Your task to perform on an android device: turn on airplane mode Image 0: 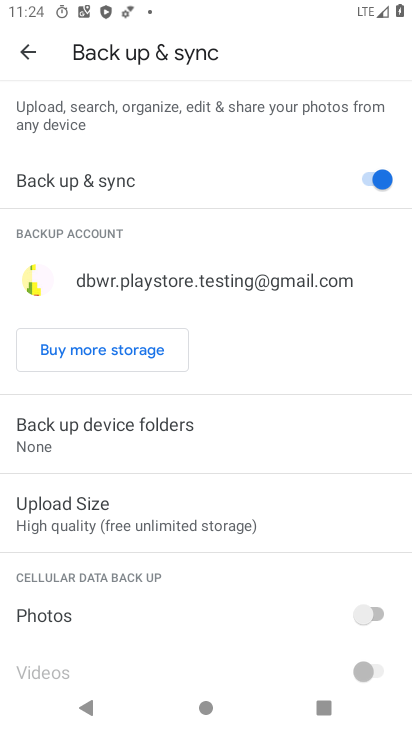
Step 0: press home button
Your task to perform on an android device: turn on airplane mode Image 1: 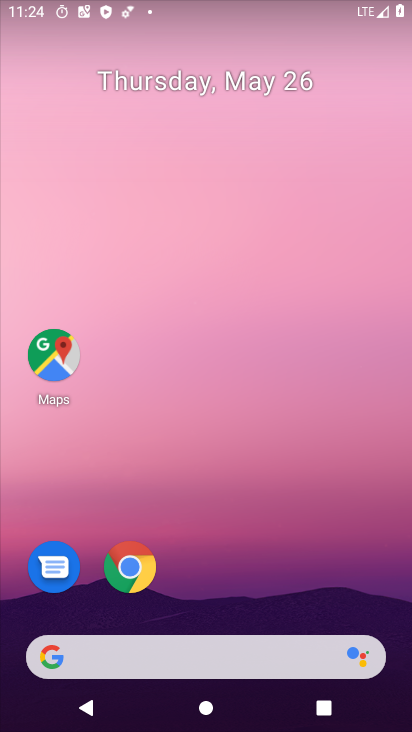
Step 1: drag from (144, 701) to (237, 114)
Your task to perform on an android device: turn on airplane mode Image 2: 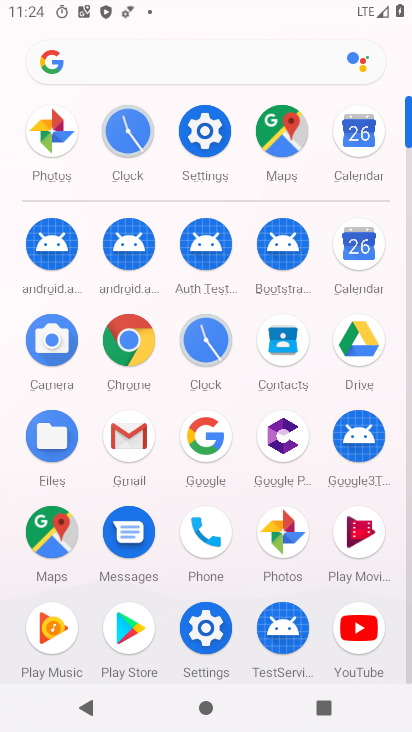
Step 2: click (195, 126)
Your task to perform on an android device: turn on airplane mode Image 3: 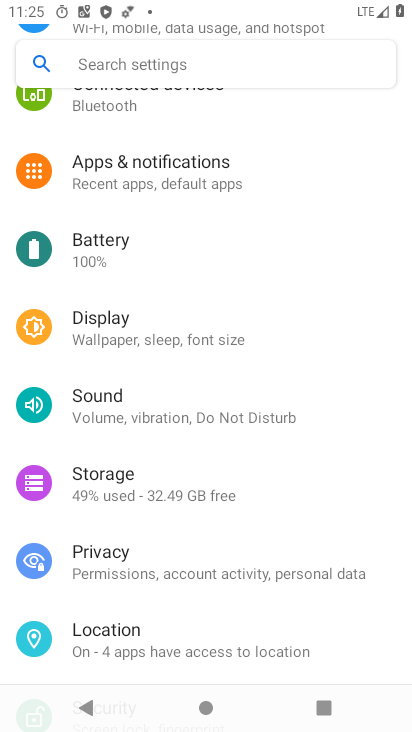
Step 3: drag from (323, 197) to (204, 697)
Your task to perform on an android device: turn on airplane mode Image 4: 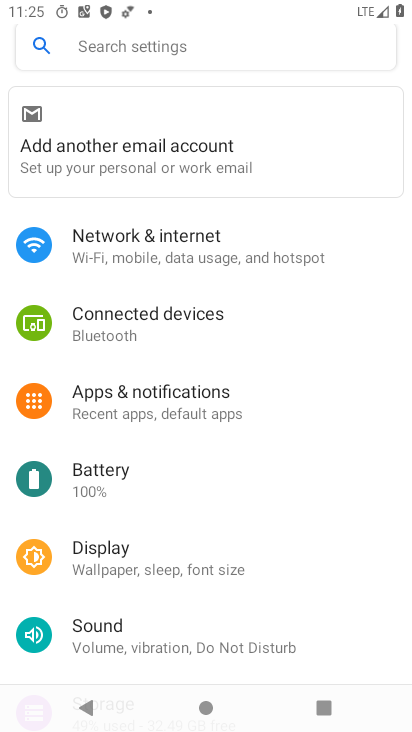
Step 4: click (282, 249)
Your task to perform on an android device: turn on airplane mode Image 5: 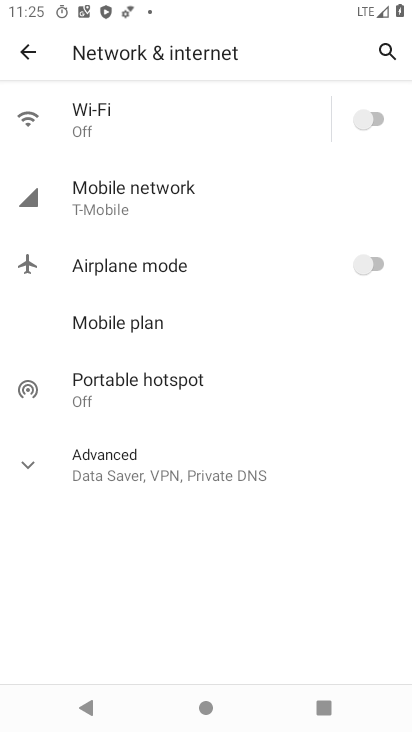
Step 5: click (365, 266)
Your task to perform on an android device: turn on airplane mode Image 6: 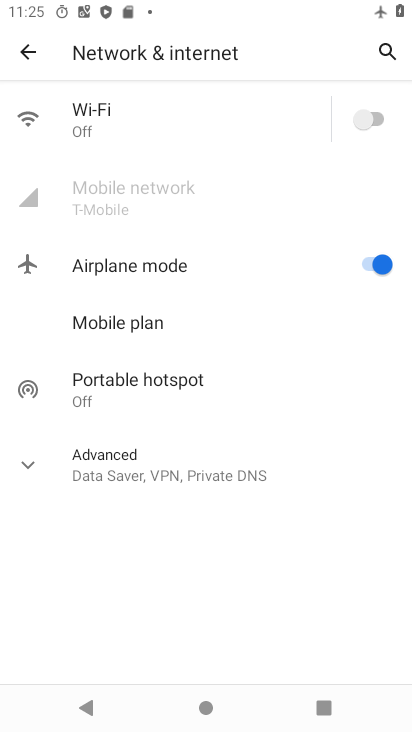
Step 6: task complete